Your task to perform on an android device: Open accessibility settings Image 0: 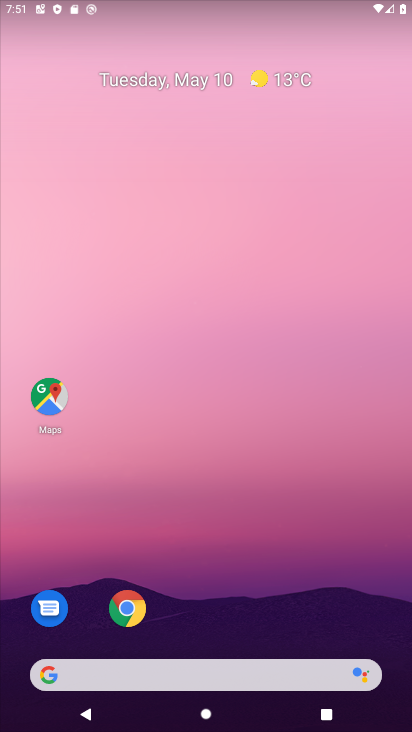
Step 0: drag from (224, 608) to (176, 149)
Your task to perform on an android device: Open accessibility settings Image 1: 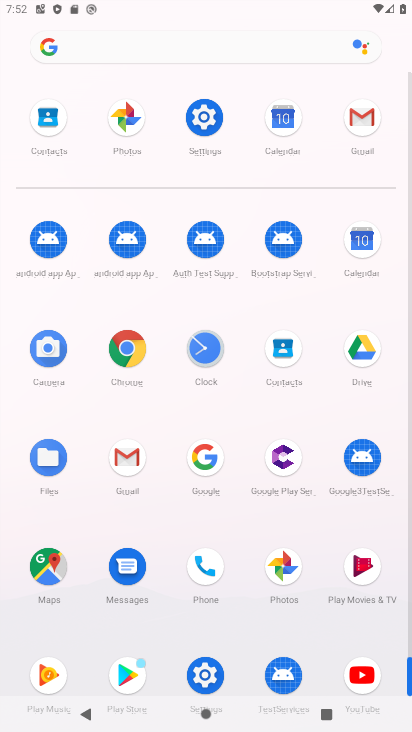
Step 1: click (201, 679)
Your task to perform on an android device: Open accessibility settings Image 2: 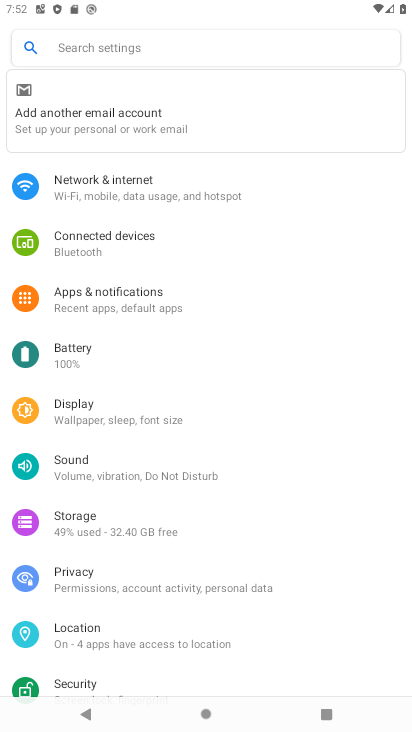
Step 2: drag from (130, 617) to (145, 236)
Your task to perform on an android device: Open accessibility settings Image 3: 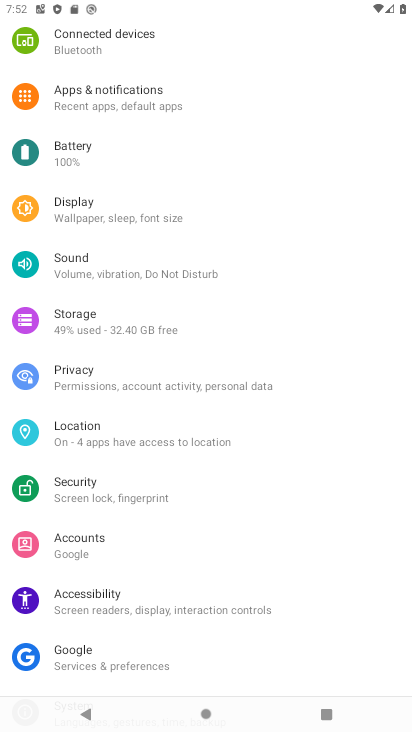
Step 3: click (106, 606)
Your task to perform on an android device: Open accessibility settings Image 4: 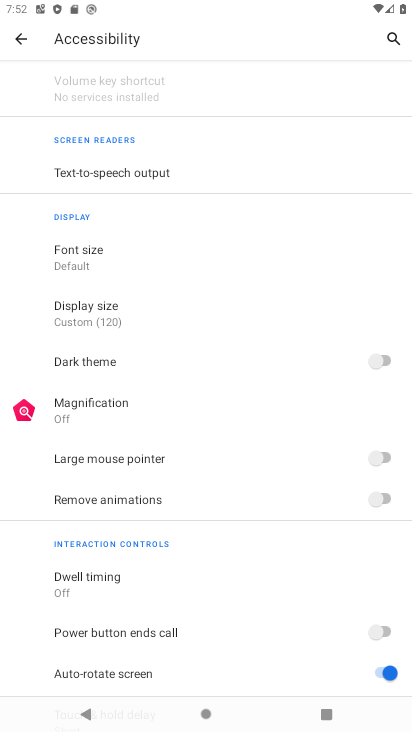
Step 4: task complete